Your task to perform on an android device: Show me productivity apps on the Play Store Image 0: 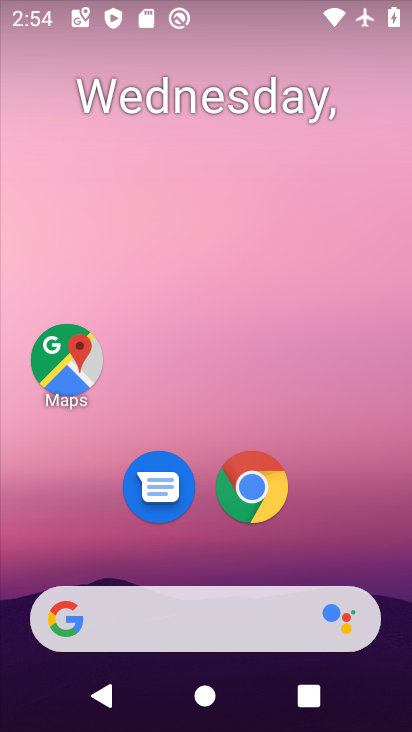
Step 0: drag from (332, 526) to (379, 55)
Your task to perform on an android device: Show me productivity apps on the Play Store Image 1: 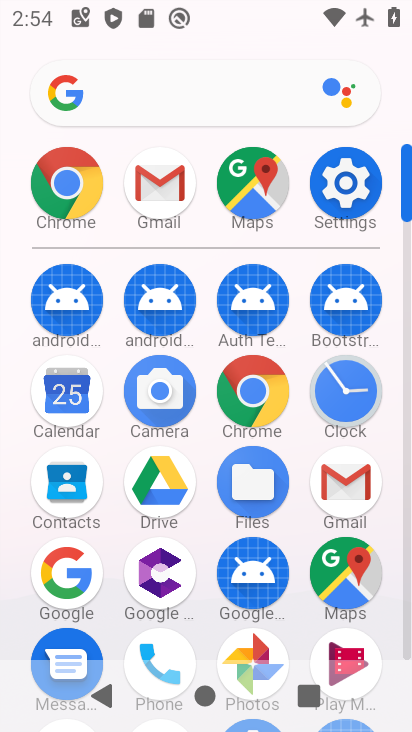
Step 1: drag from (397, 640) to (394, 206)
Your task to perform on an android device: Show me productivity apps on the Play Store Image 2: 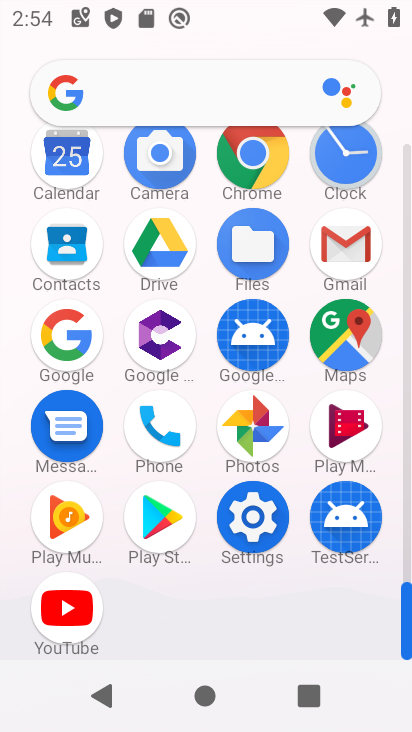
Step 2: click (178, 511)
Your task to perform on an android device: Show me productivity apps on the Play Store Image 3: 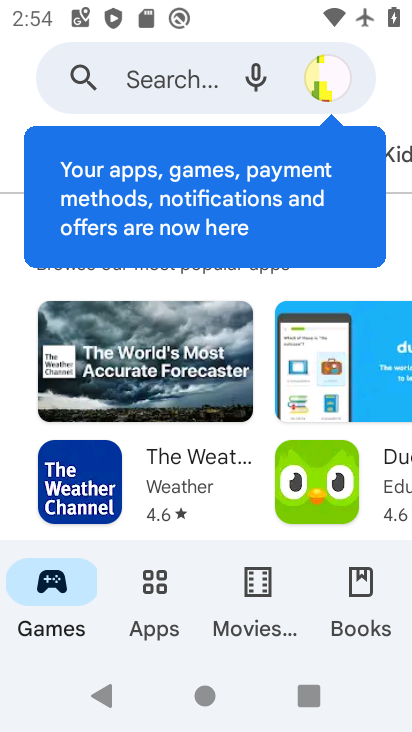
Step 3: click (191, 98)
Your task to perform on an android device: Show me productivity apps on the Play Store Image 4: 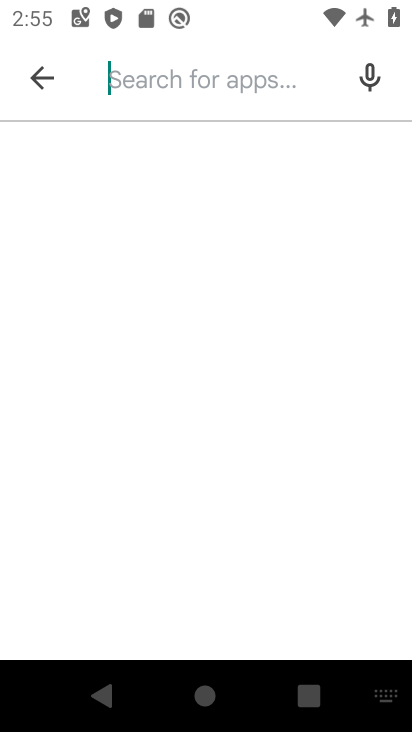
Step 4: type "productivity apps"
Your task to perform on an android device: Show me productivity apps on the Play Store Image 5: 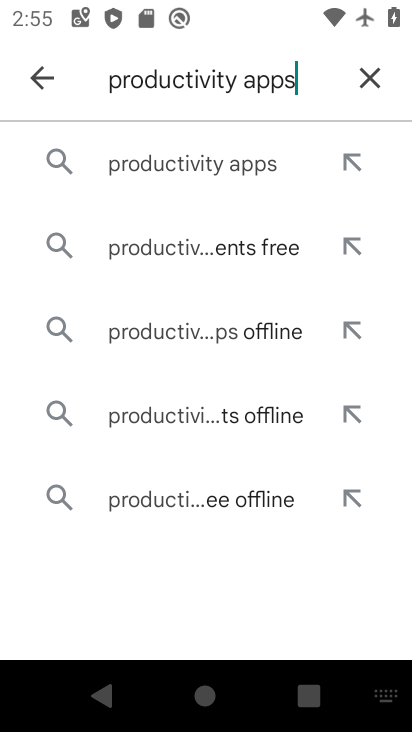
Step 5: click (179, 164)
Your task to perform on an android device: Show me productivity apps on the Play Store Image 6: 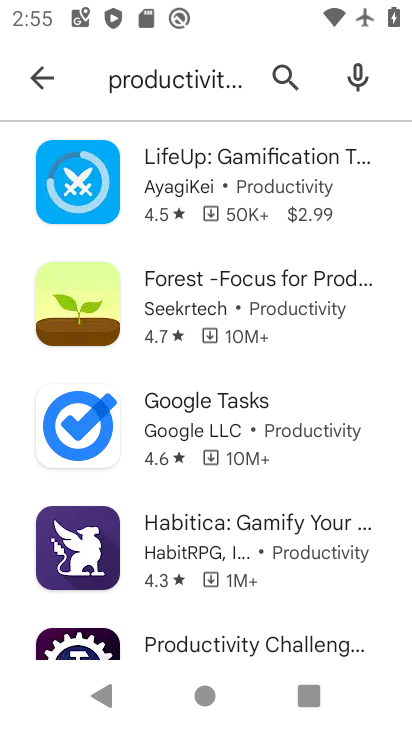
Step 6: task complete